Your task to perform on an android device: toggle data saver in the chrome app Image 0: 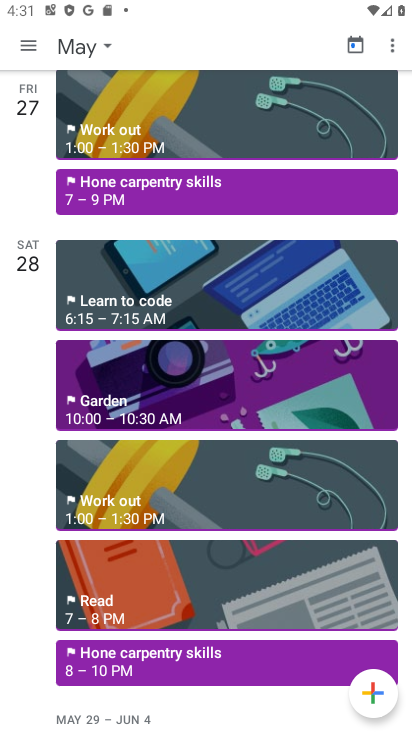
Step 0: press home button
Your task to perform on an android device: toggle data saver in the chrome app Image 1: 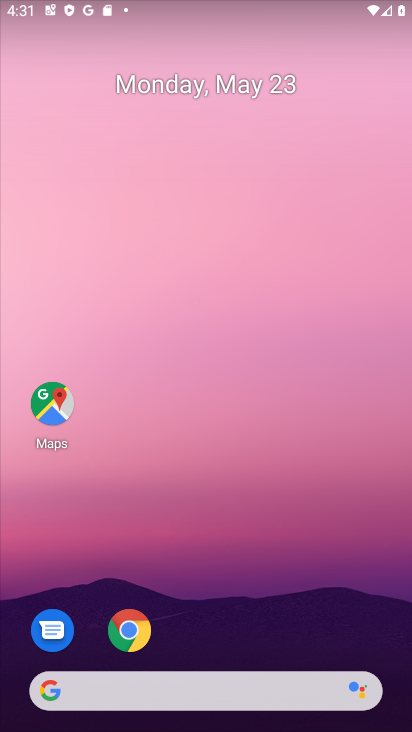
Step 1: click (130, 626)
Your task to perform on an android device: toggle data saver in the chrome app Image 2: 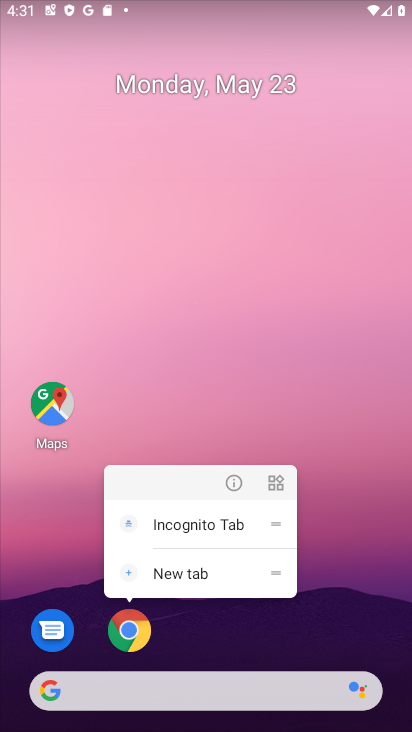
Step 2: click (130, 626)
Your task to perform on an android device: toggle data saver in the chrome app Image 3: 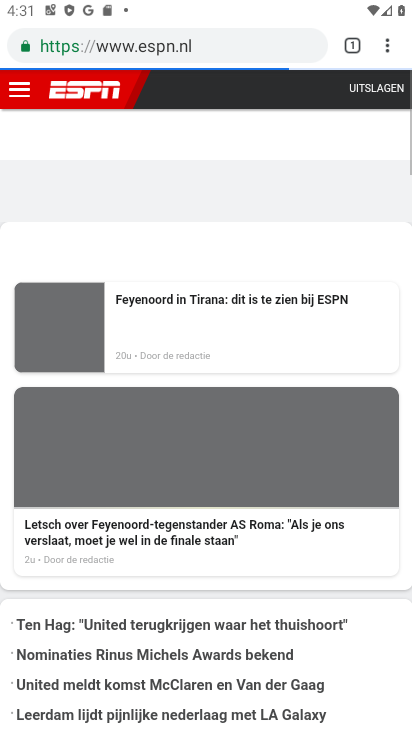
Step 3: click (387, 42)
Your task to perform on an android device: toggle data saver in the chrome app Image 4: 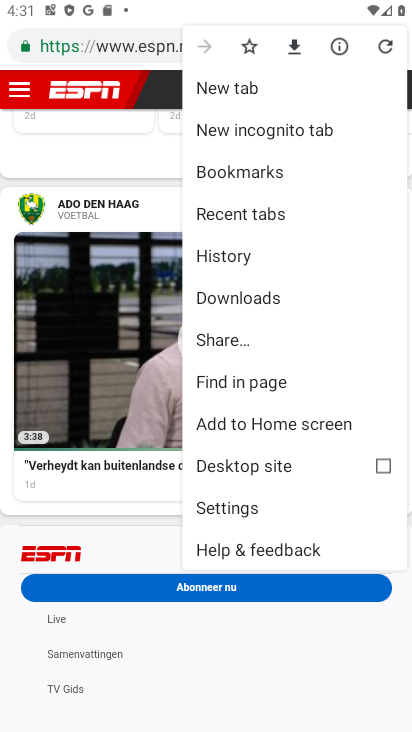
Step 4: click (269, 505)
Your task to perform on an android device: toggle data saver in the chrome app Image 5: 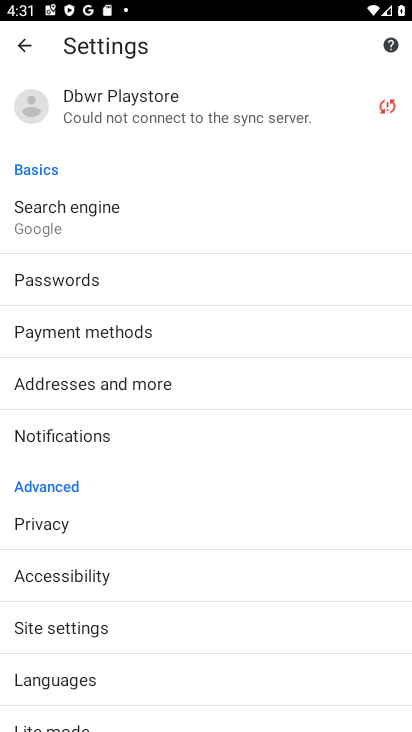
Step 5: drag from (146, 673) to (175, 166)
Your task to perform on an android device: toggle data saver in the chrome app Image 6: 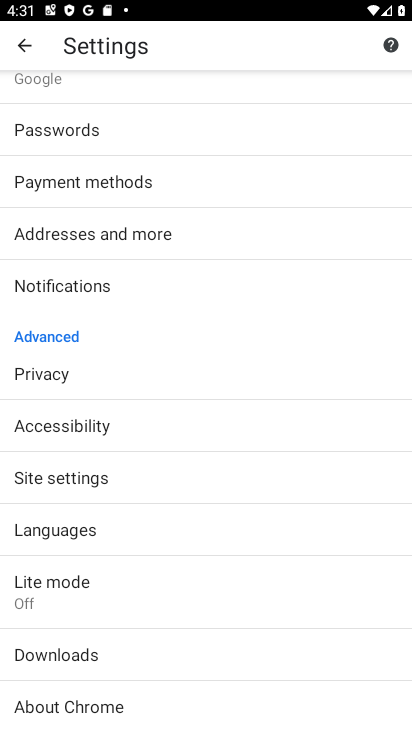
Step 6: click (77, 595)
Your task to perform on an android device: toggle data saver in the chrome app Image 7: 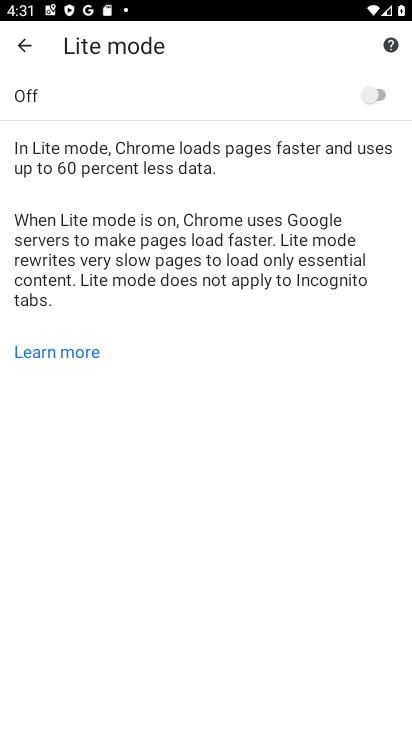
Step 7: click (374, 91)
Your task to perform on an android device: toggle data saver in the chrome app Image 8: 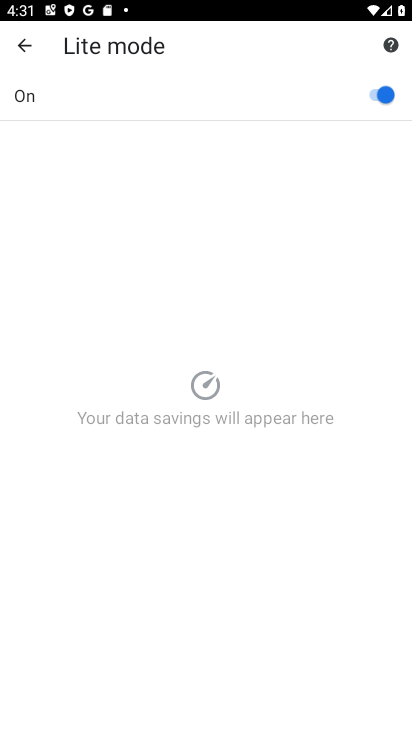
Step 8: task complete